Your task to perform on an android device: Open accessibility settings Image 0: 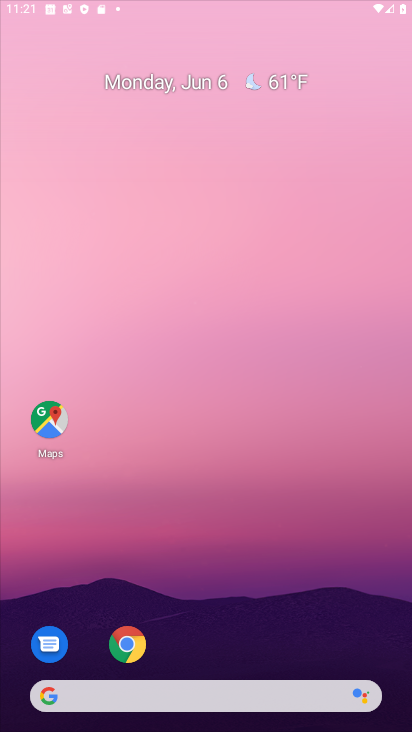
Step 0: click (201, 199)
Your task to perform on an android device: Open accessibility settings Image 1: 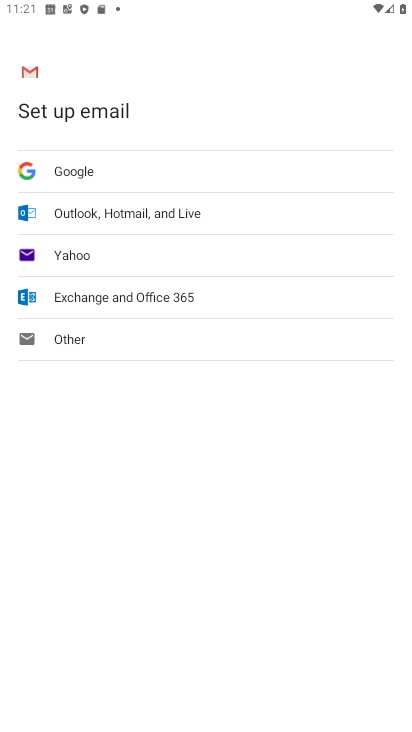
Step 1: press home button
Your task to perform on an android device: Open accessibility settings Image 2: 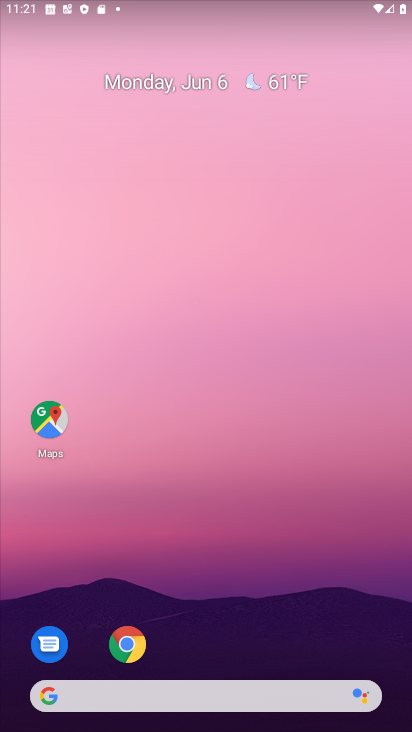
Step 2: drag from (222, 652) to (238, 148)
Your task to perform on an android device: Open accessibility settings Image 3: 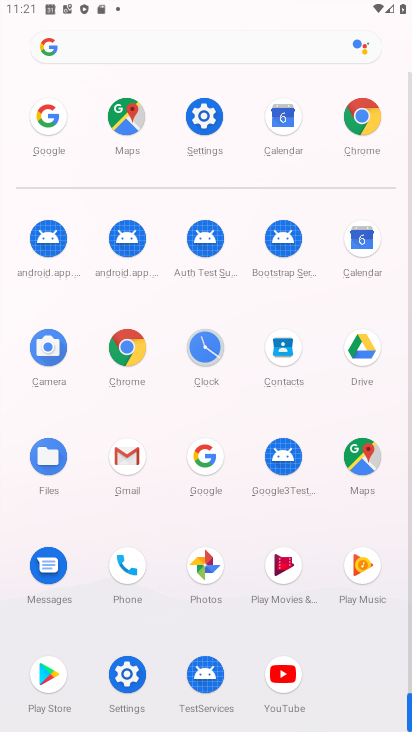
Step 3: click (139, 700)
Your task to perform on an android device: Open accessibility settings Image 4: 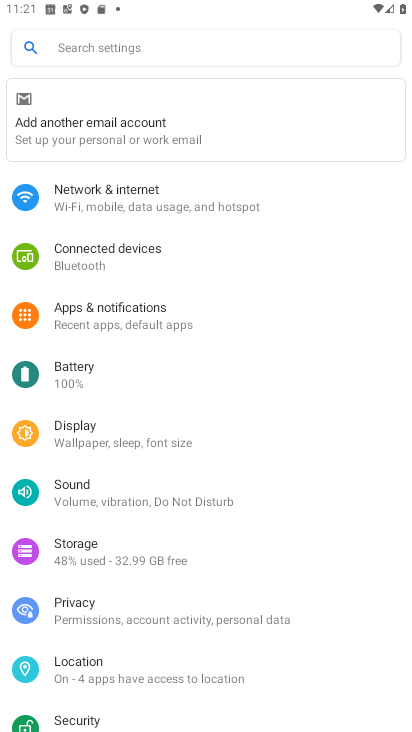
Step 4: drag from (141, 561) to (141, 175)
Your task to perform on an android device: Open accessibility settings Image 5: 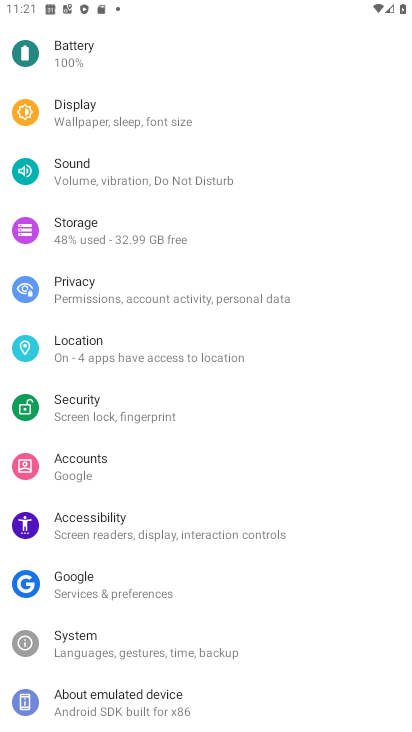
Step 5: click (159, 521)
Your task to perform on an android device: Open accessibility settings Image 6: 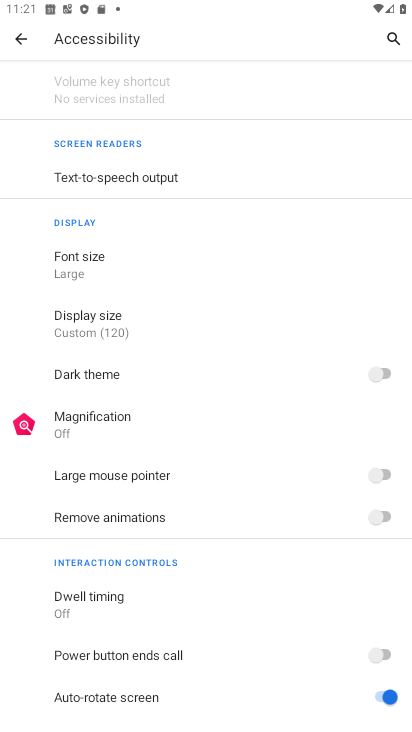
Step 6: task complete